Your task to perform on an android device: turn on bluetooth scan Image 0: 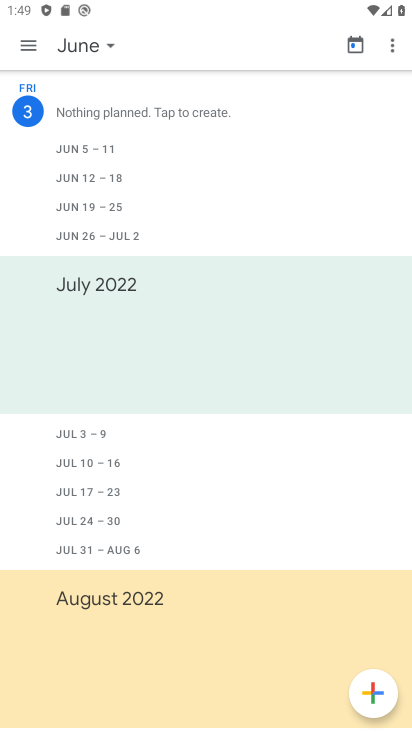
Step 0: press back button
Your task to perform on an android device: turn on bluetooth scan Image 1: 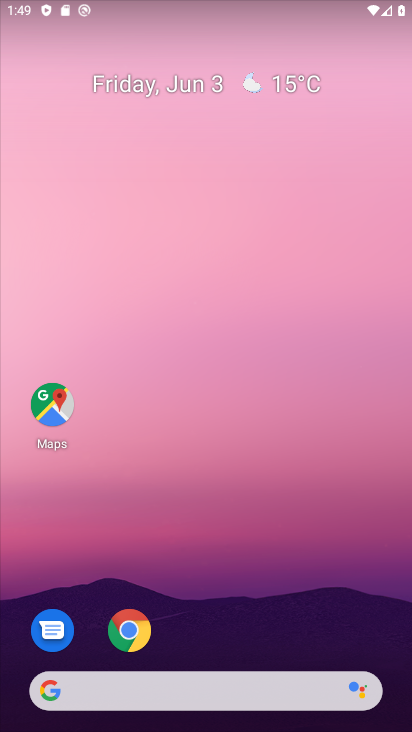
Step 1: click (191, 69)
Your task to perform on an android device: turn on bluetooth scan Image 2: 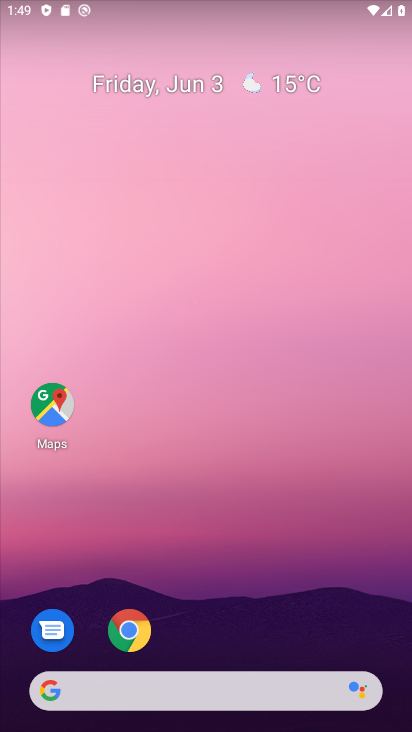
Step 2: drag from (174, 122) to (172, 42)
Your task to perform on an android device: turn on bluetooth scan Image 3: 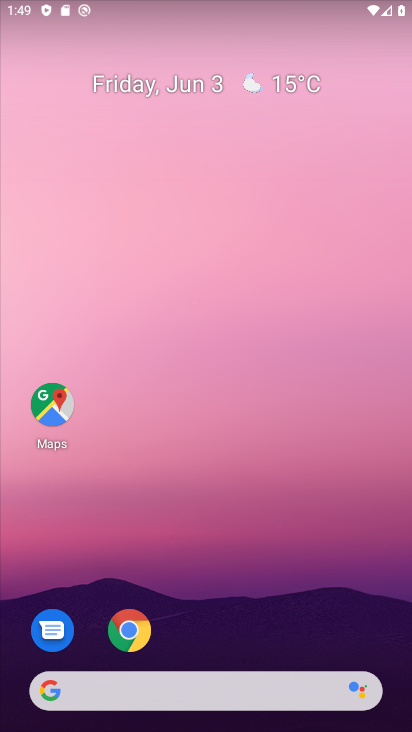
Step 3: drag from (182, 403) to (183, 8)
Your task to perform on an android device: turn on bluetooth scan Image 4: 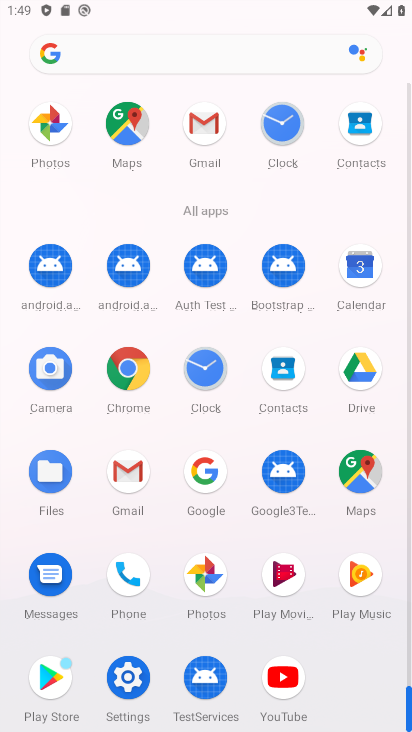
Step 4: click (127, 673)
Your task to perform on an android device: turn on bluetooth scan Image 5: 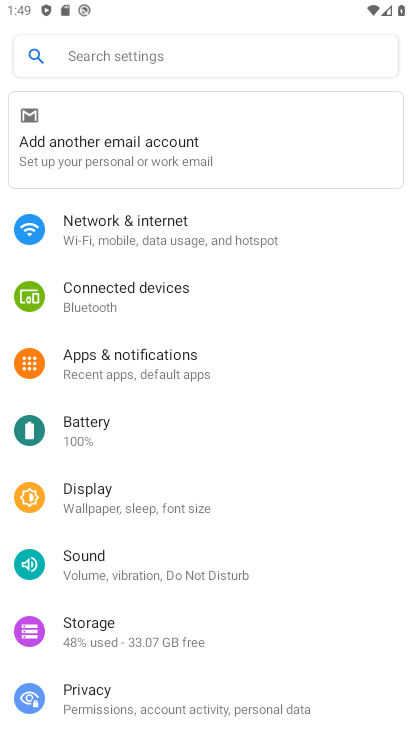
Step 5: drag from (215, 587) to (233, 226)
Your task to perform on an android device: turn on bluetooth scan Image 6: 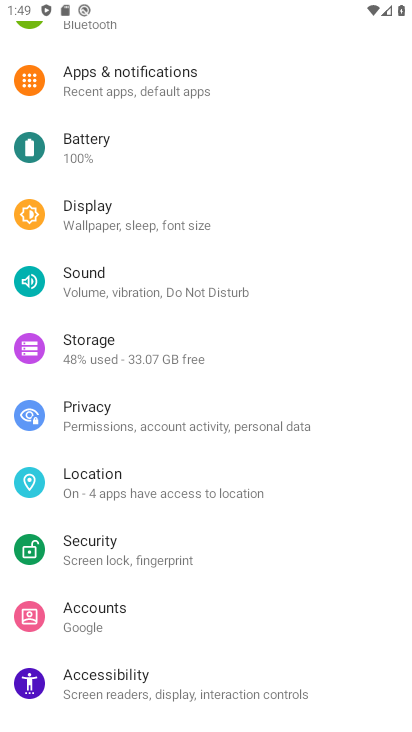
Step 6: click (154, 483)
Your task to perform on an android device: turn on bluetooth scan Image 7: 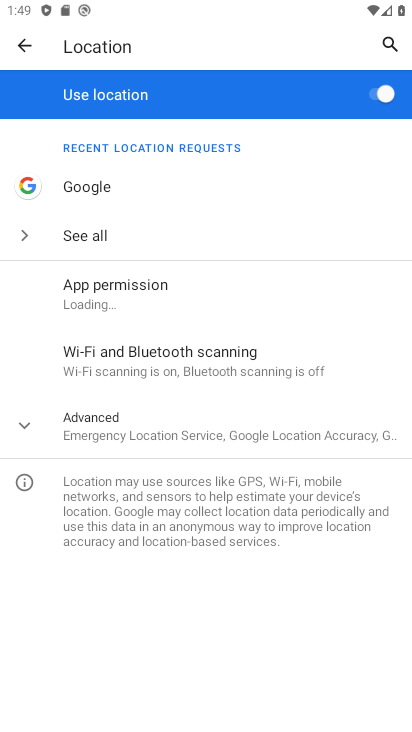
Step 7: click (175, 356)
Your task to perform on an android device: turn on bluetooth scan Image 8: 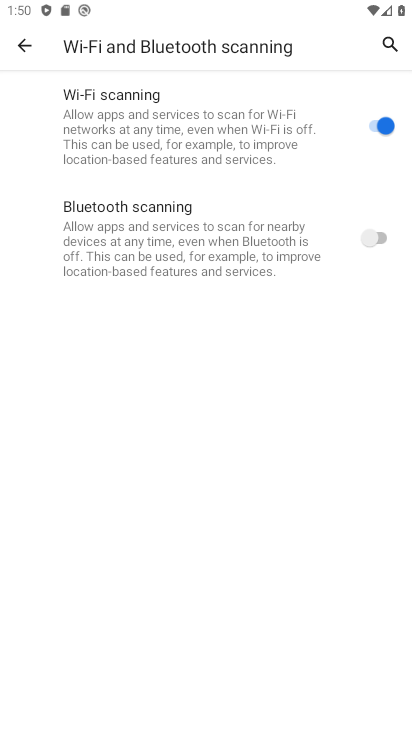
Step 8: click (364, 233)
Your task to perform on an android device: turn on bluetooth scan Image 9: 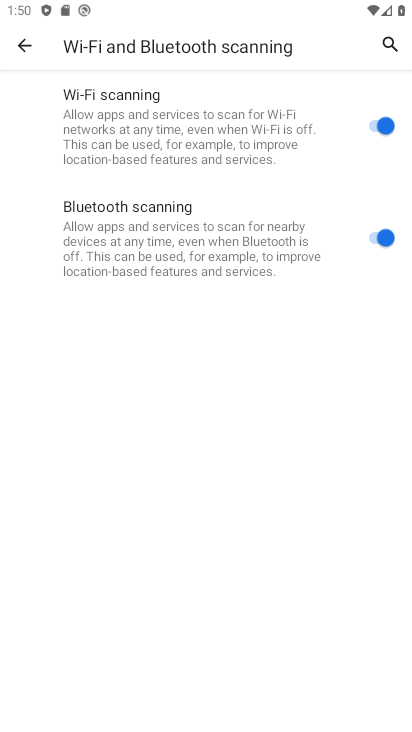
Step 9: task complete